Your task to perform on an android device: turn vacation reply on in the gmail app Image 0: 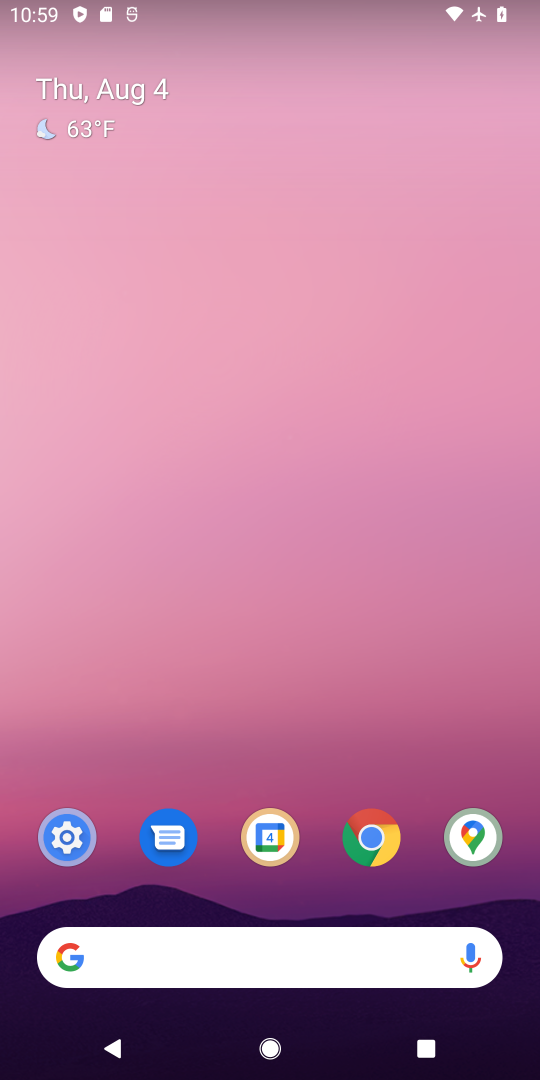
Step 0: press home button
Your task to perform on an android device: turn vacation reply on in the gmail app Image 1: 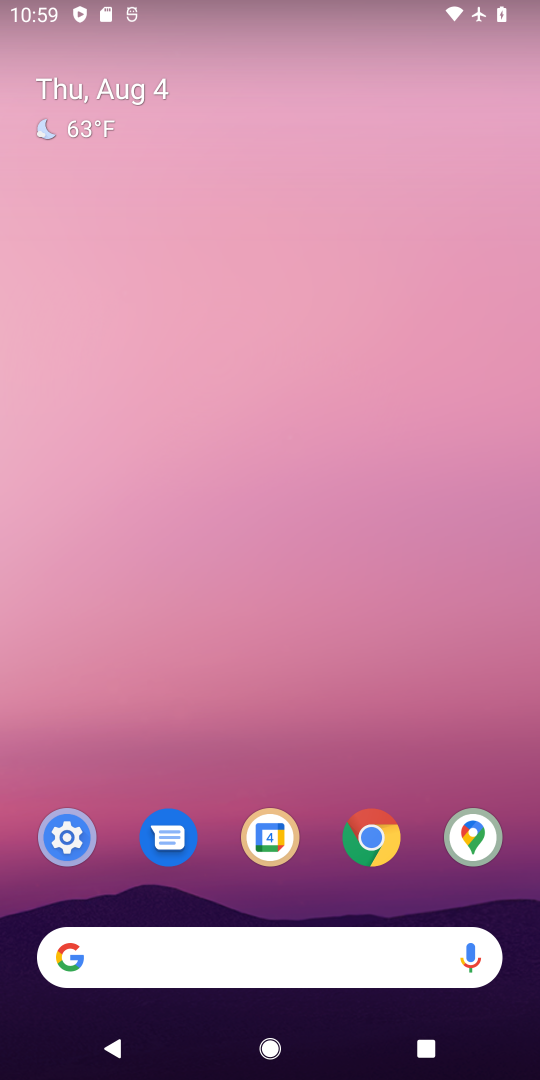
Step 1: drag from (316, 900) to (303, 155)
Your task to perform on an android device: turn vacation reply on in the gmail app Image 2: 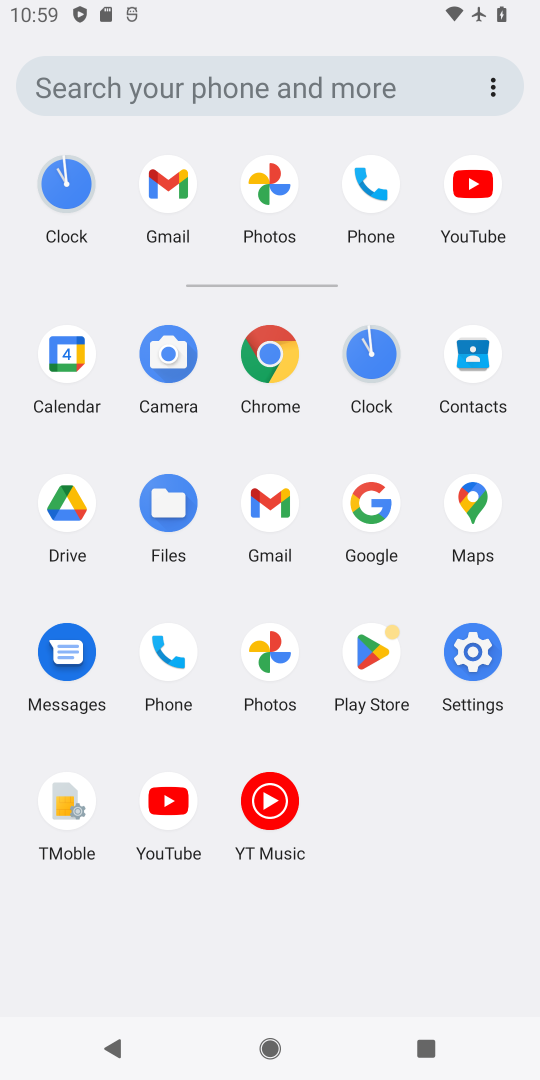
Step 2: click (265, 493)
Your task to perform on an android device: turn vacation reply on in the gmail app Image 3: 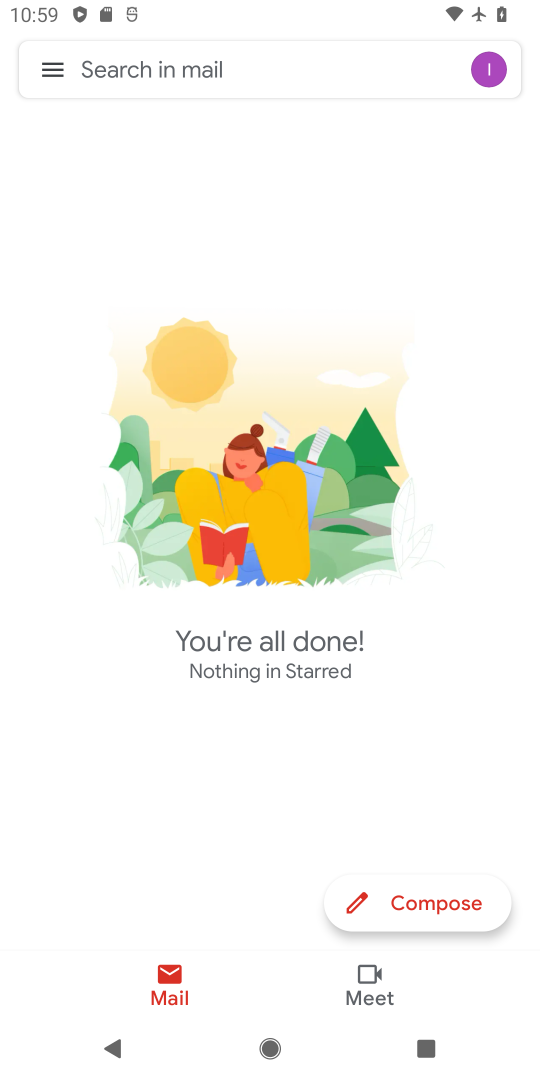
Step 3: click (51, 59)
Your task to perform on an android device: turn vacation reply on in the gmail app Image 4: 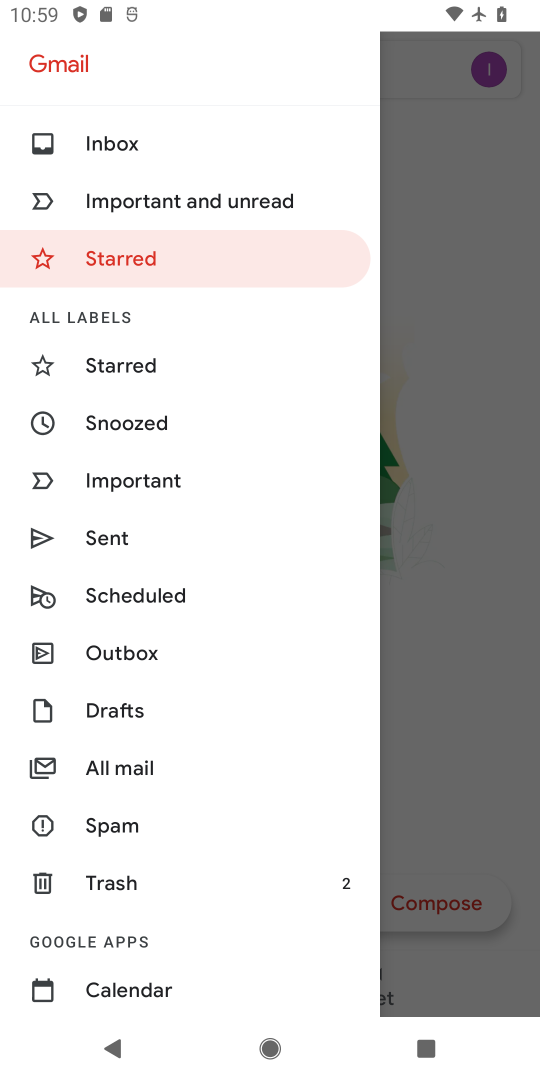
Step 4: drag from (202, 930) to (244, 245)
Your task to perform on an android device: turn vacation reply on in the gmail app Image 5: 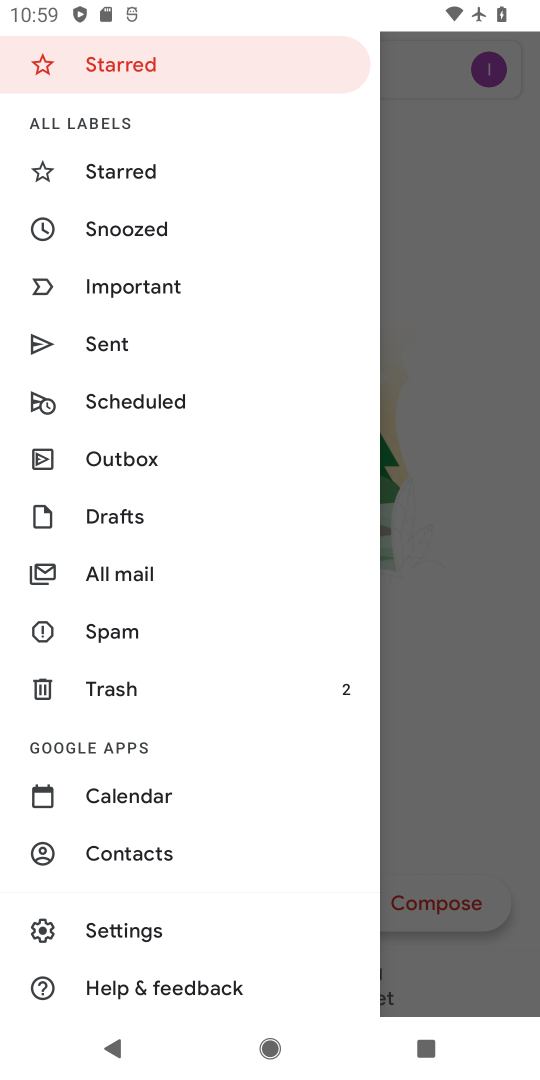
Step 5: click (179, 929)
Your task to perform on an android device: turn vacation reply on in the gmail app Image 6: 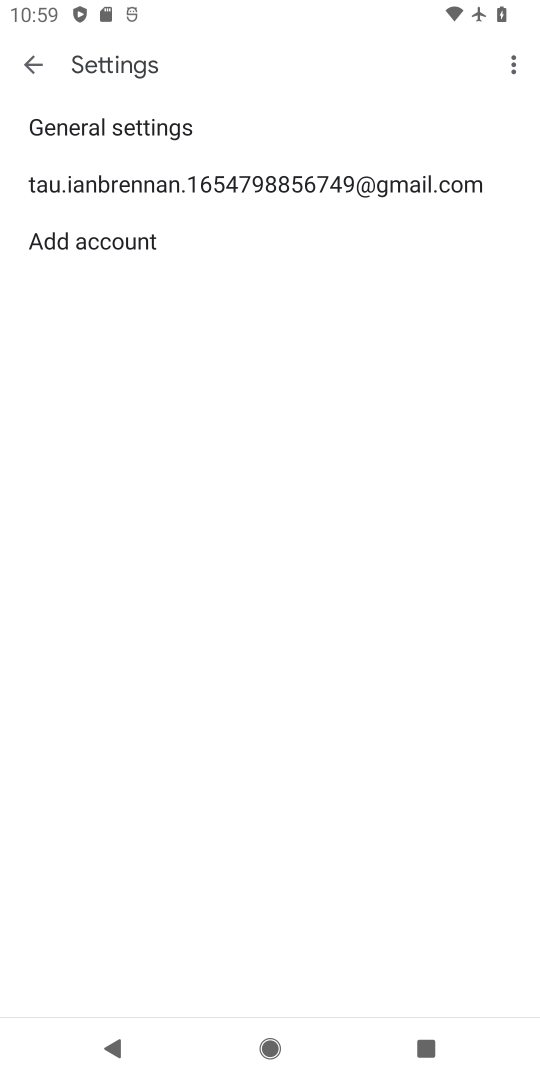
Step 6: click (195, 172)
Your task to perform on an android device: turn vacation reply on in the gmail app Image 7: 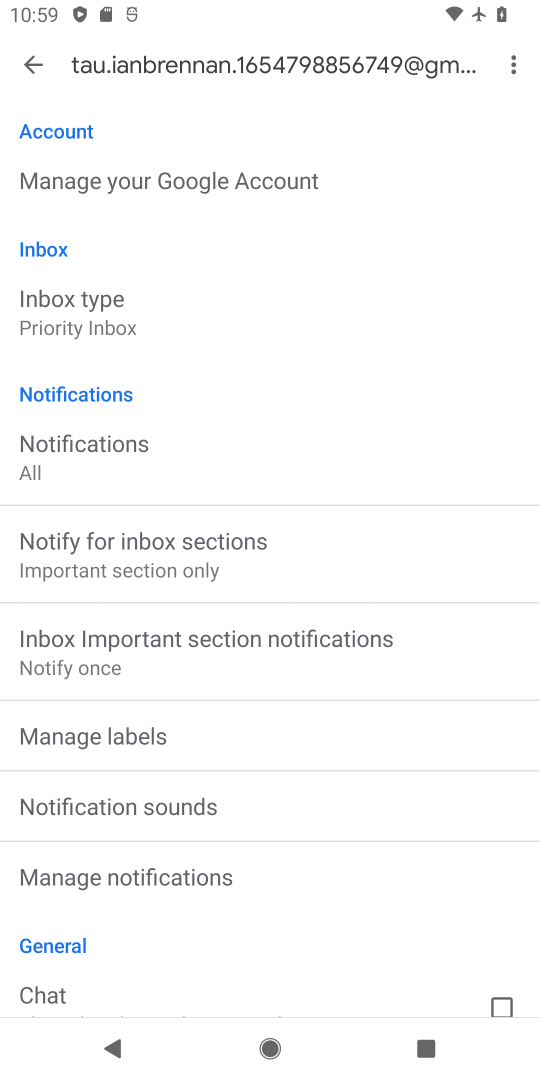
Step 7: drag from (198, 929) to (214, 307)
Your task to perform on an android device: turn vacation reply on in the gmail app Image 8: 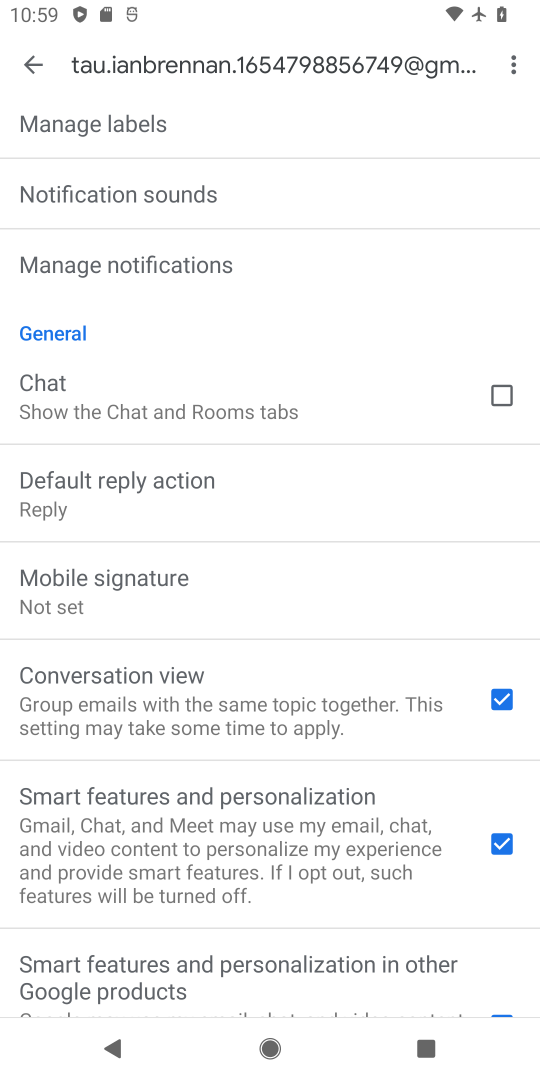
Step 8: drag from (255, 901) to (275, 295)
Your task to perform on an android device: turn vacation reply on in the gmail app Image 9: 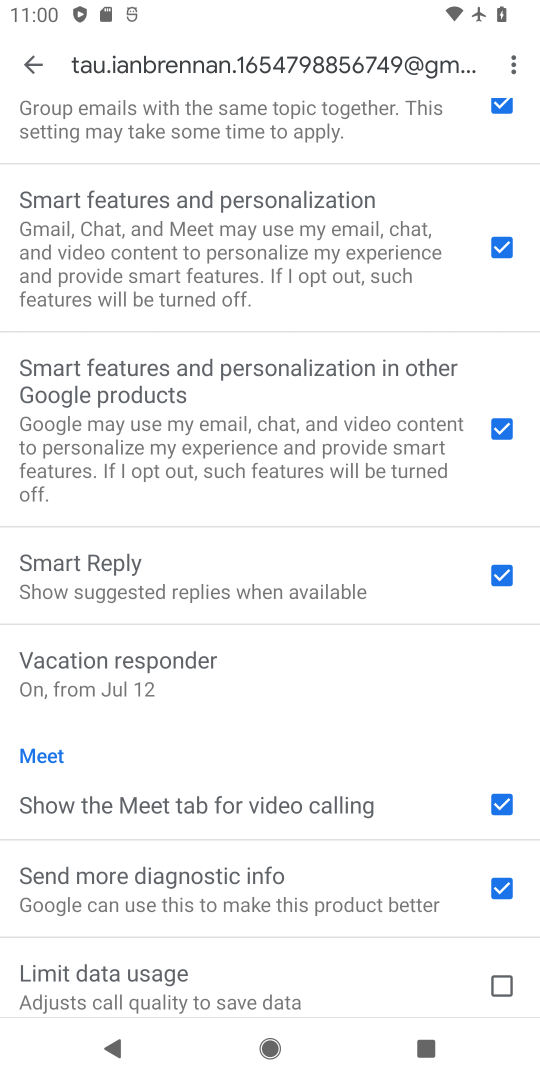
Step 9: click (201, 677)
Your task to perform on an android device: turn vacation reply on in the gmail app Image 10: 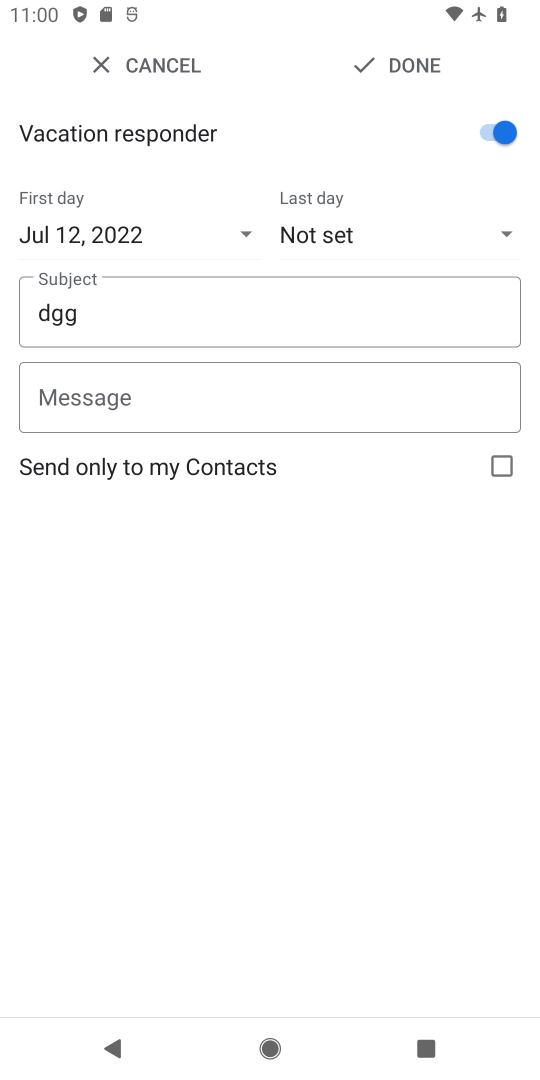
Step 10: task complete